Your task to perform on an android device: check android version Image 0: 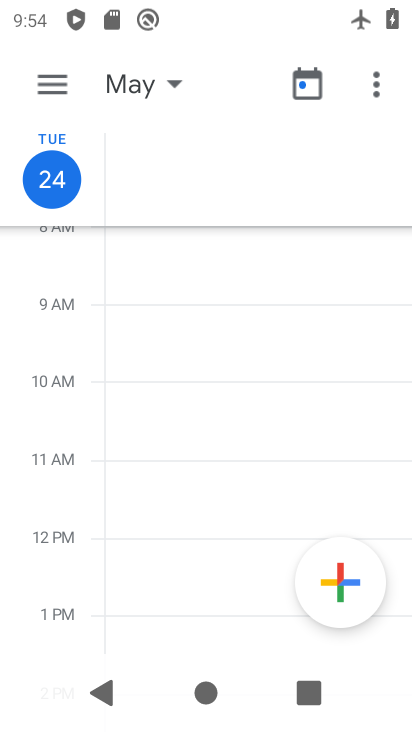
Step 0: press home button
Your task to perform on an android device: check android version Image 1: 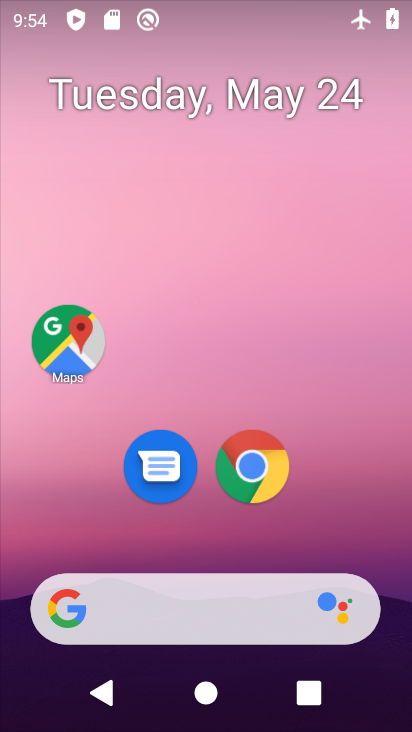
Step 1: drag from (213, 542) to (236, 40)
Your task to perform on an android device: check android version Image 2: 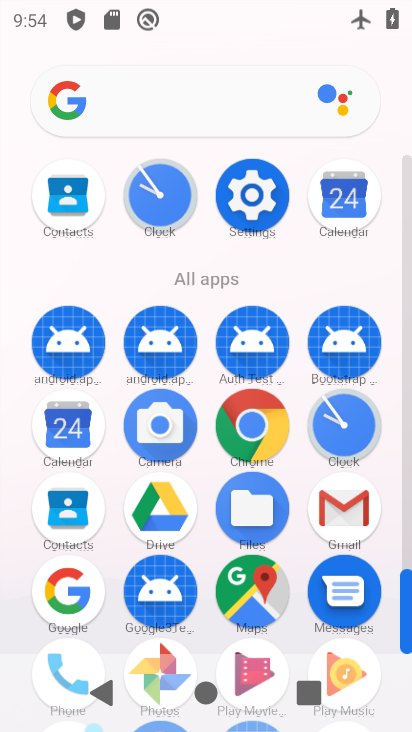
Step 2: click (275, 194)
Your task to perform on an android device: check android version Image 3: 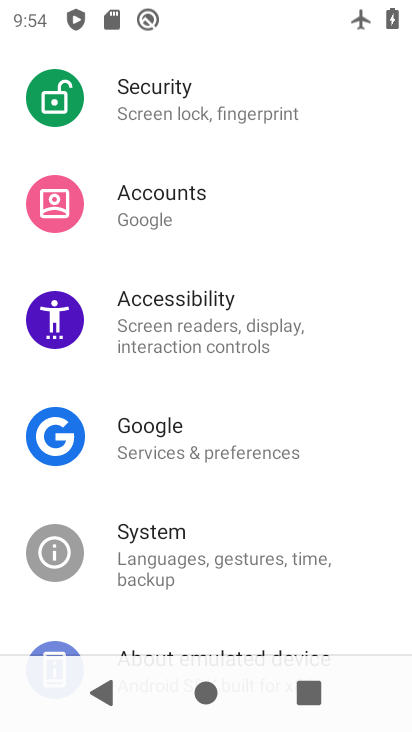
Step 3: drag from (218, 272) to (248, 1)
Your task to perform on an android device: check android version Image 4: 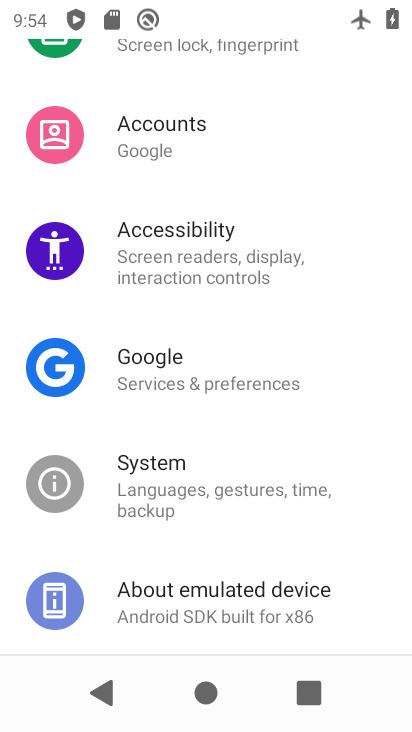
Step 4: drag from (208, 572) to (216, 85)
Your task to perform on an android device: check android version Image 5: 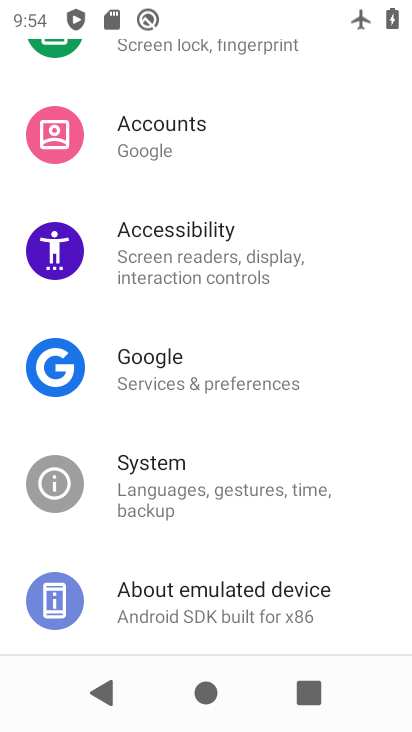
Step 5: drag from (194, 575) to (199, 364)
Your task to perform on an android device: check android version Image 6: 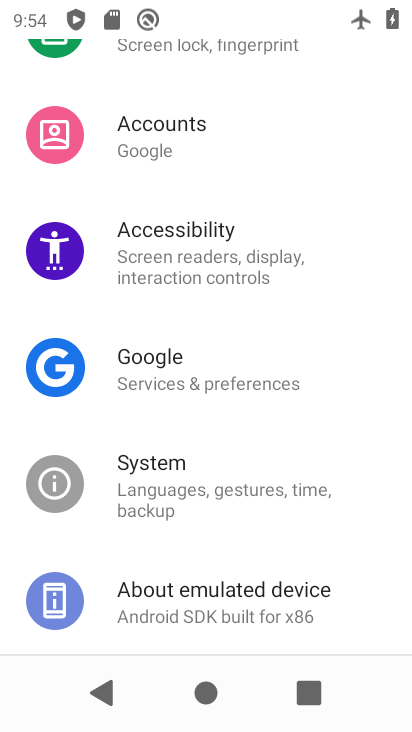
Step 6: click (217, 602)
Your task to perform on an android device: check android version Image 7: 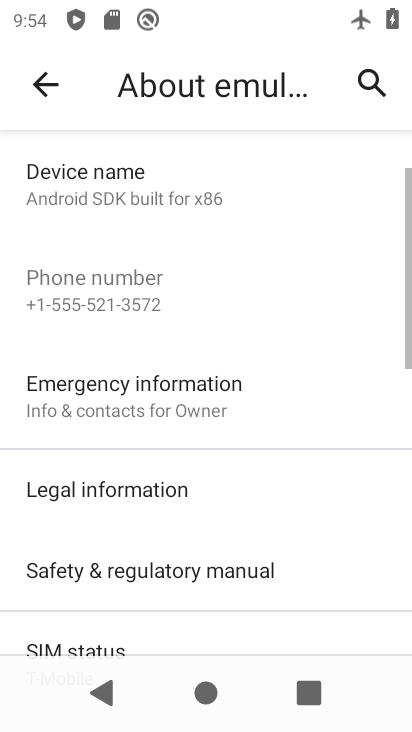
Step 7: drag from (180, 569) to (284, 82)
Your task to perform on an android device: check android version Image 8: 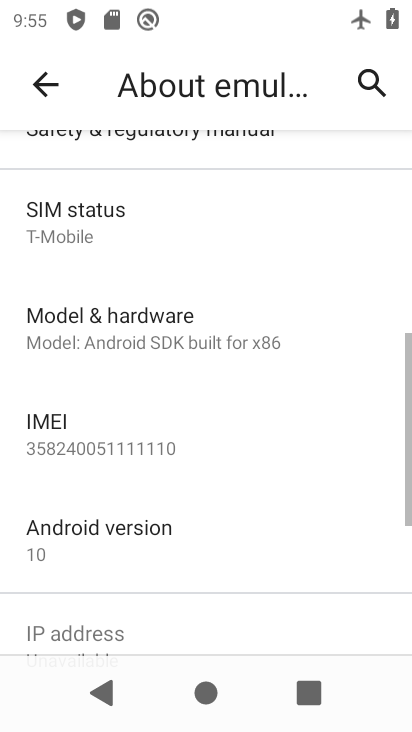
Step 8: click (114, 546)
Your task to perform on an android device: check android version Image 9: 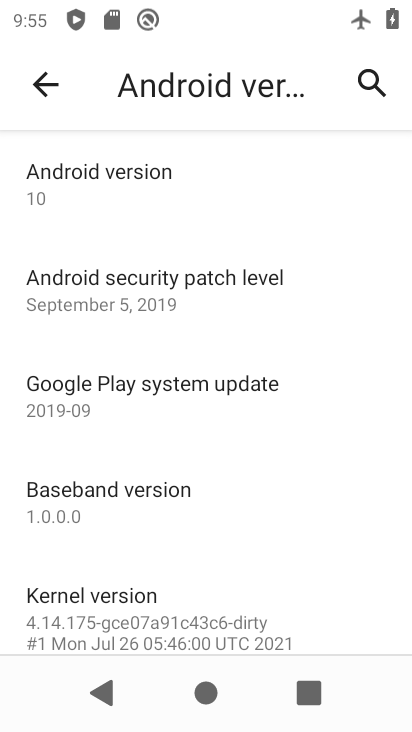
Step 9: task complete